Your task to perform on an android device: Go to sound settings Image 0: 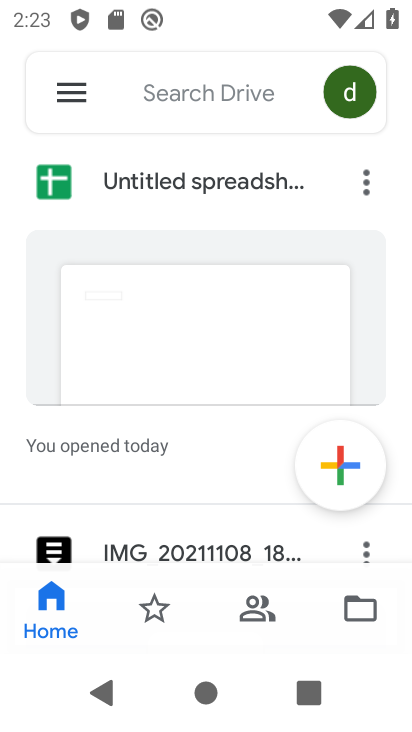
Step 0: press home button
Your task to perform on an android device: Go to sound settings Image 1: 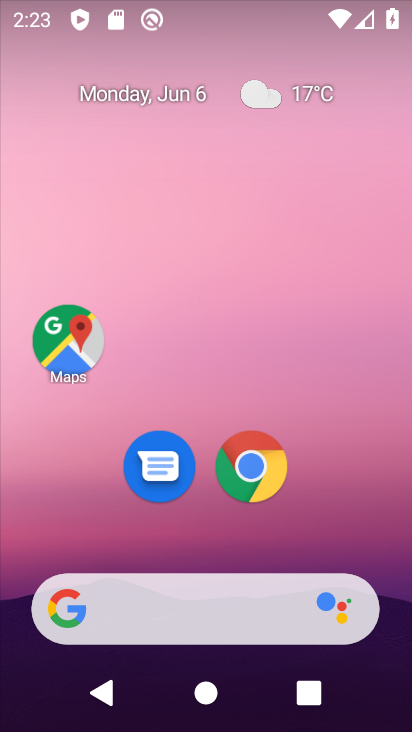
Step 1: drag from (340, 502) to (248, 4)
Your task to perform on an android device: Go to sound settings Image 2: 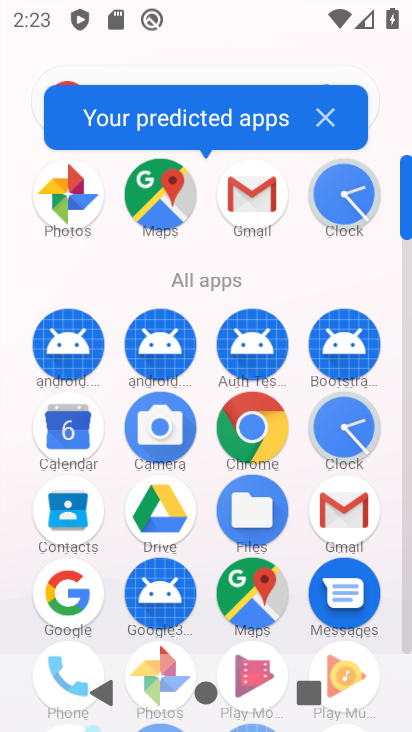
Step 2: drag from (229, 620) to (197, 0)
Your task to perform on an android device: Go to sound settings Image 3: 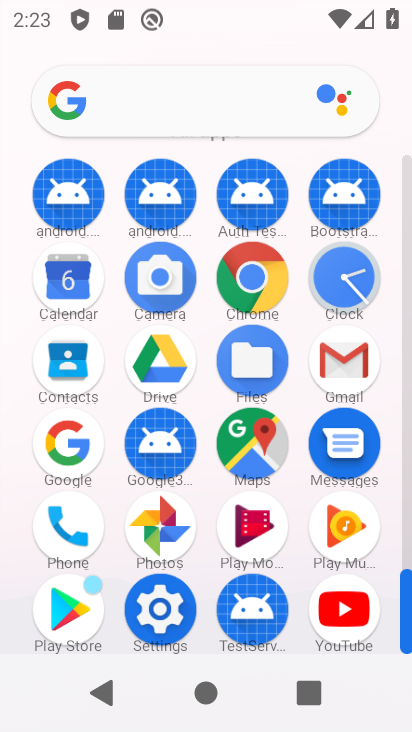
Step 3: click (159, 612)
Your task to perform on an android device: Go to sound settings Image 4: 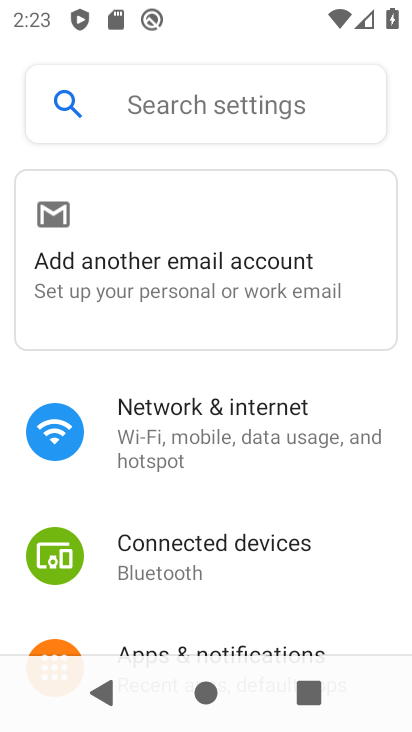
Step 4: drag from (213, 604) to (214, 13)
Your task to perform on an android device: Go to sound settings Image 5: 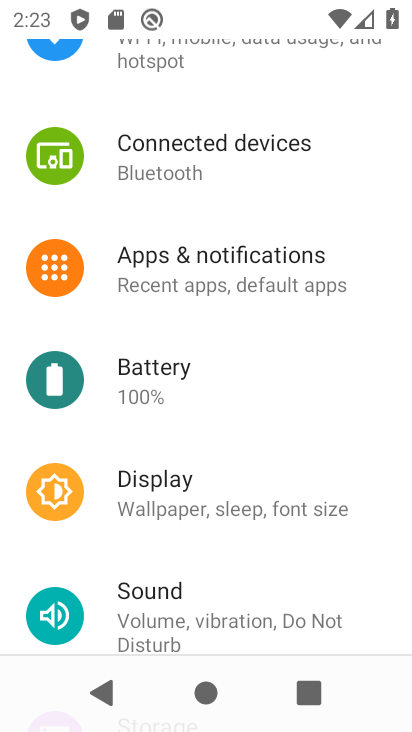
Step 5: click (178, 577)
Your task to perform on an android device: Go to sound settings Image 6: 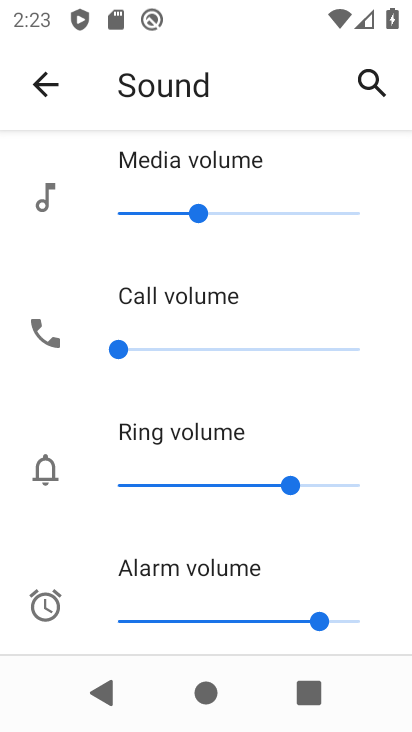
Step 6: task complete